Your task to perform on an android device: set an alarm Image 0: 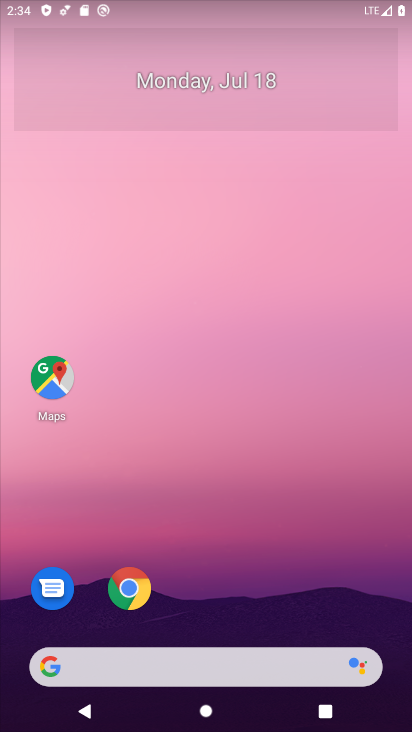
Step 0: drag from (194, 595) to (237, 43)
Your task to perform on an android device: set an alarm Image 1: 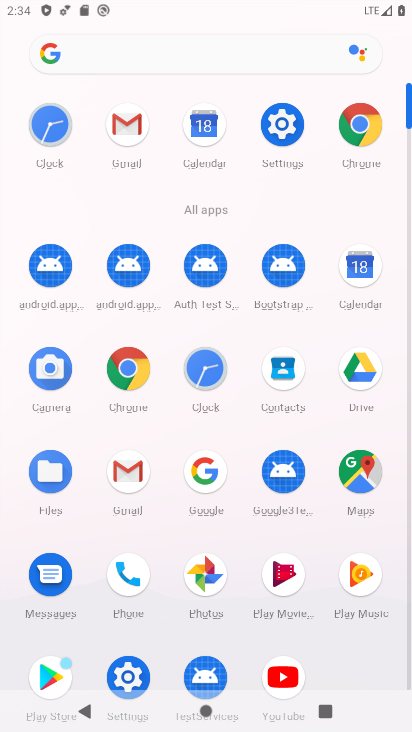
Step 1: click (203, 369)
Your task to perform on an android device: set an alarm Image 2: 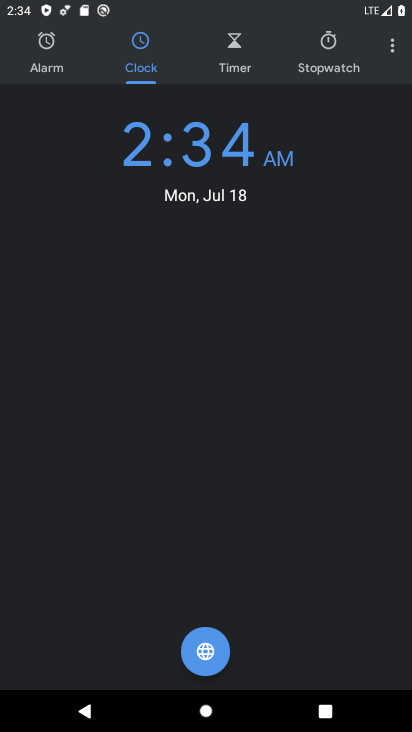
Step 2: click (54, 48)
Your task to perform on an android device: set an alarm Image 3: 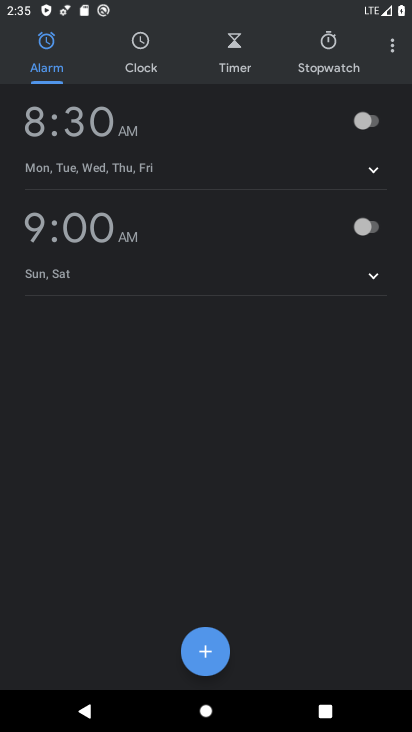
Step 3: click (366, 115)
Your task to perform on an android device: set an alarm Image 4: 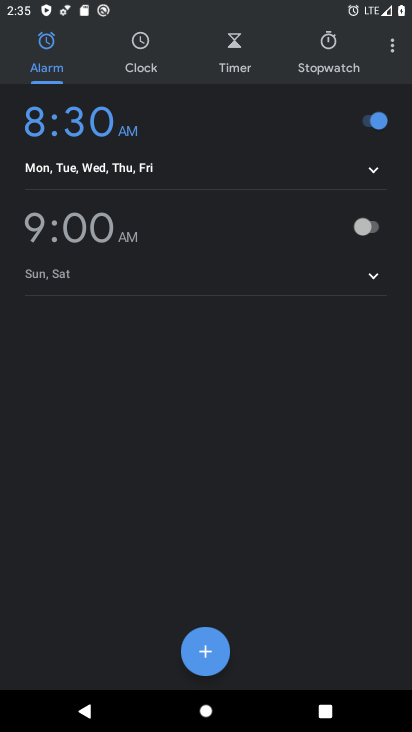
Step 4: task complete